Your task to perform on an android device: show emergency info Image 0: 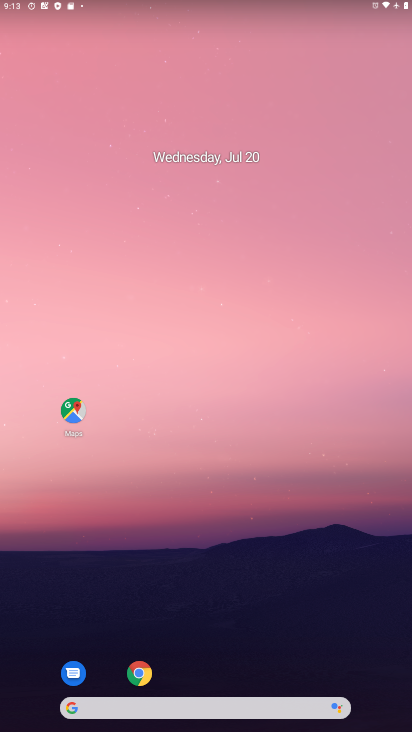
Step 0: drag from (193, 685) to (209, 102)
Your task to perform on an android device: show emergency info Image 1: 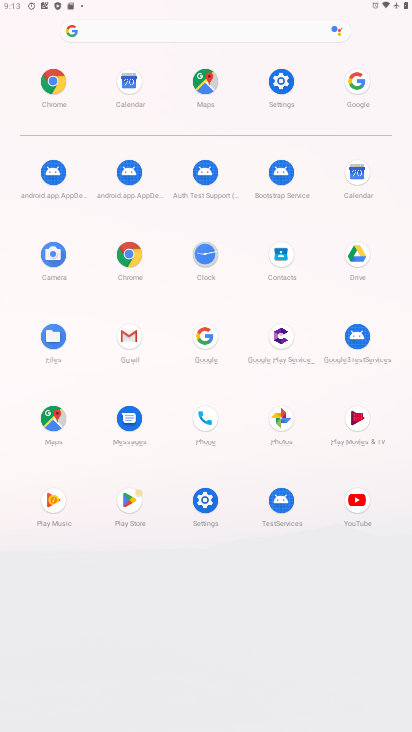
Step 1: click (279, 79)
Your task to perform on an android device: show emergency info Image 2: 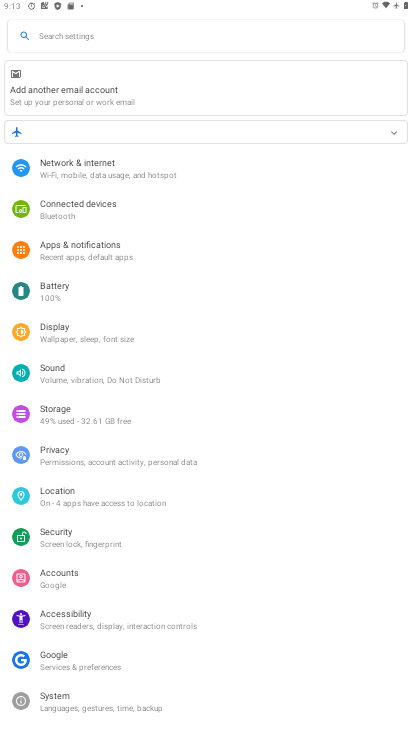
Step 2: drag from (173, 669) to (187, 68)
Your task to perform on an android device: show emergency info Image 3: 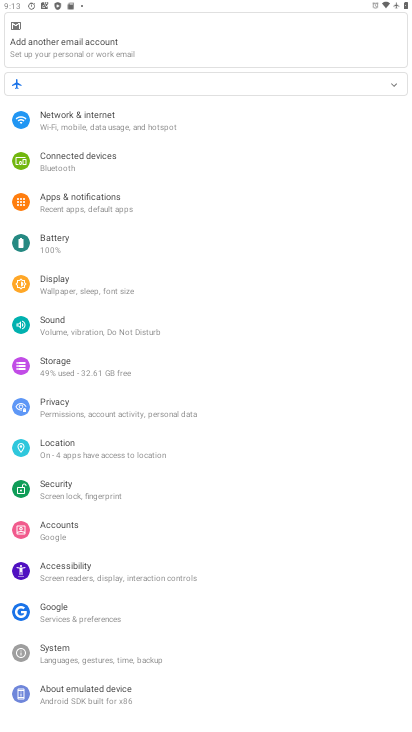
Step 3: click (114, 703)
Your task to perform on an android device: show emergency info Image 4: 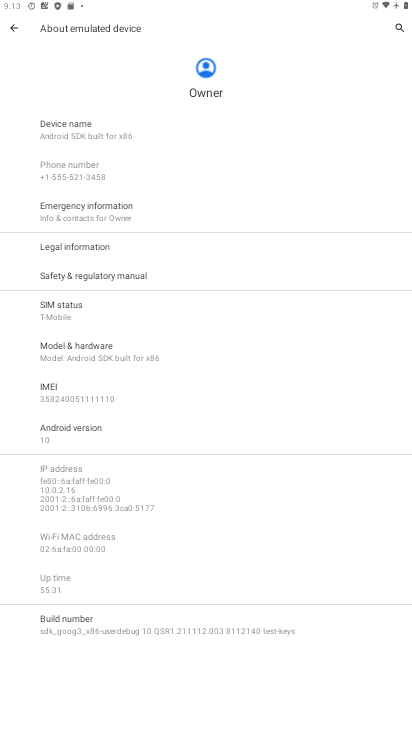
Step 4: click (93, 205)
Your task to perform on an android device: show emergency info Image 5: 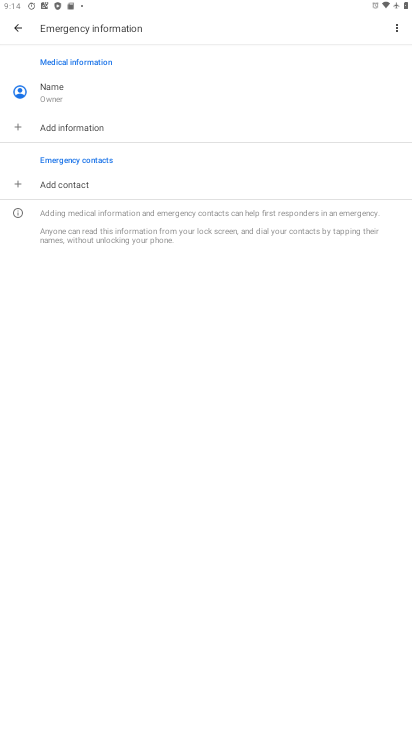
Step 5: task complete